Your task to perform on an android device: Open Chrome and go to settings Image 0: 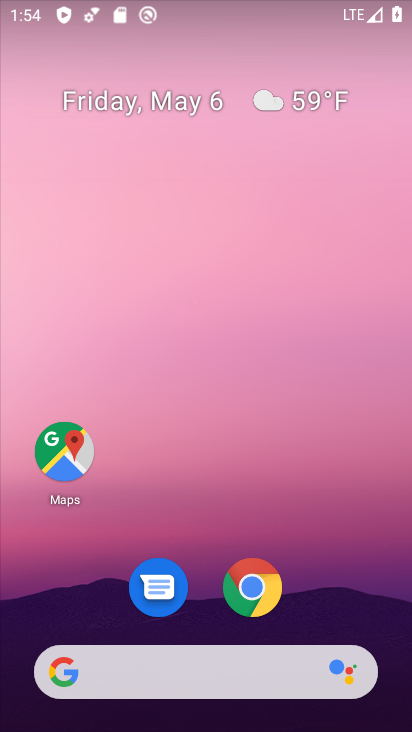
Step 0: drag from (339, 586) to (339, 91)
Your task to perform on an android device: Open Chrome and go to settings Image 1: 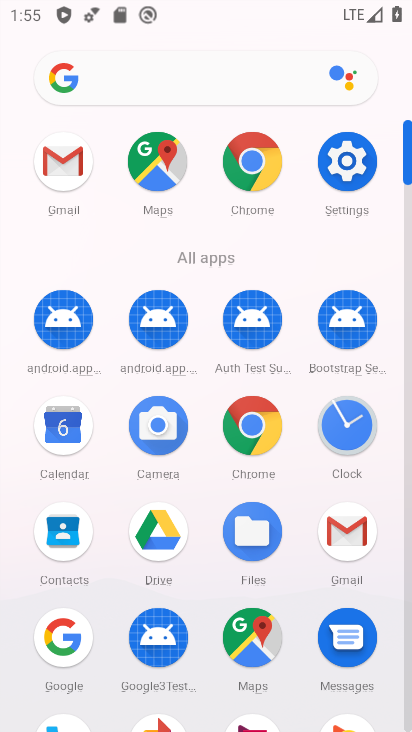
Step 1: click (345, 163)
Your task to perform on an android device: Open Chrome and go to settings Image 2: 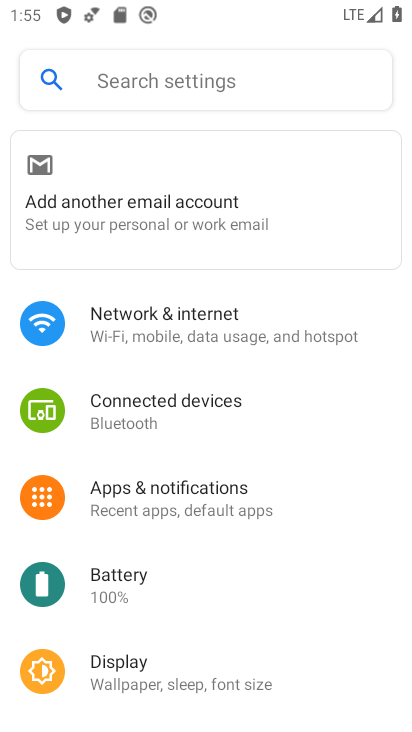
Step 2: press home button
Your task to perform on an android device: Open Chrome and go to settings Image 3: 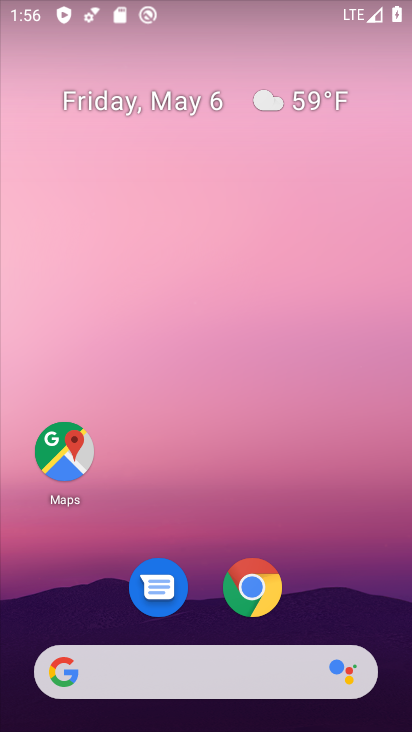
Step 3: click (243, 576)
Your task to perform on an android device: Open Chrome and go to settings Image 4: 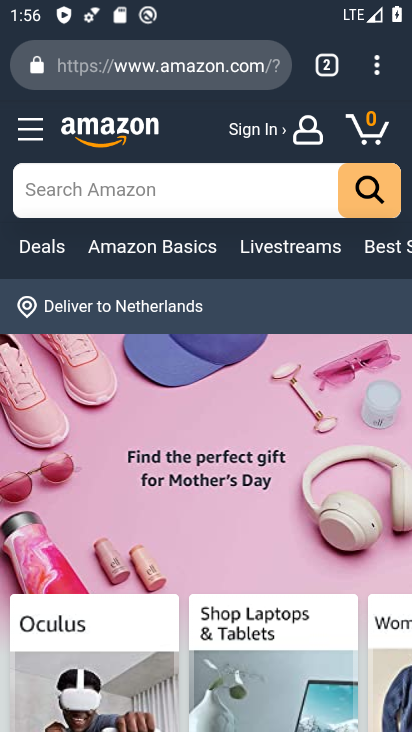
Step 4: task complete